Your task to perform on an android device: toggle airplane mode Image 0: 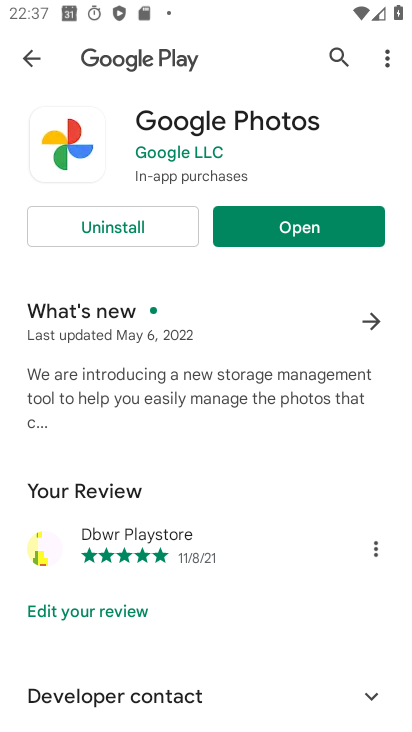
Step 0: press home button
Your task to perform on an android device: toggle airplane mode Image 1: 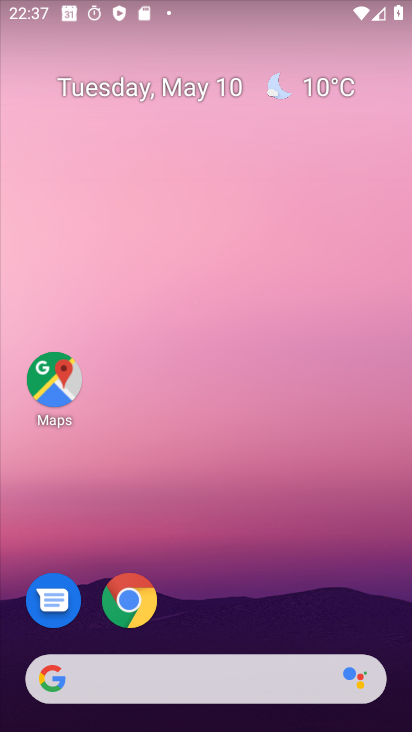
Step 1: drag from (238, 564) to (296, 165)
Your task to perform on an android device: toggle airplane mode Image 2: 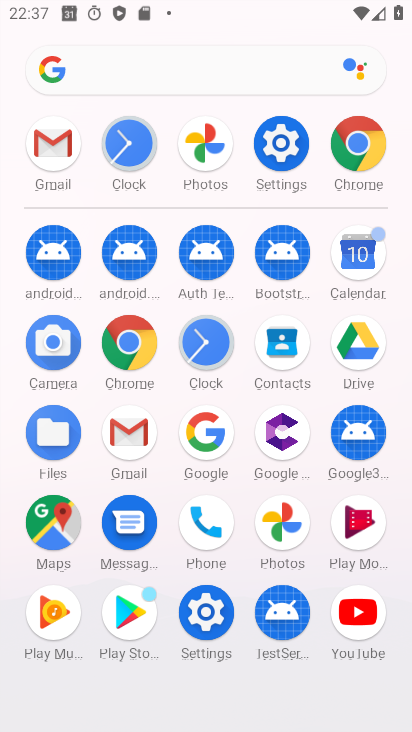
Step 2: click (280, 135)
Your task to perform on an android device: toggle airplane mode Image 3: 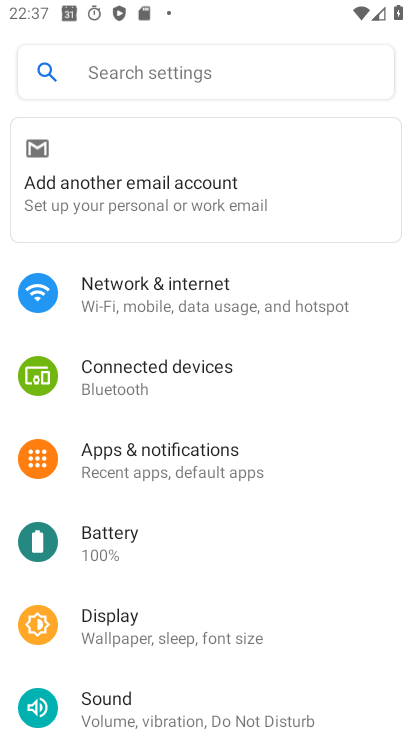
Step 3: click (165, 291)
Your task to perform on an android device: toggle airplane mode Image 4: 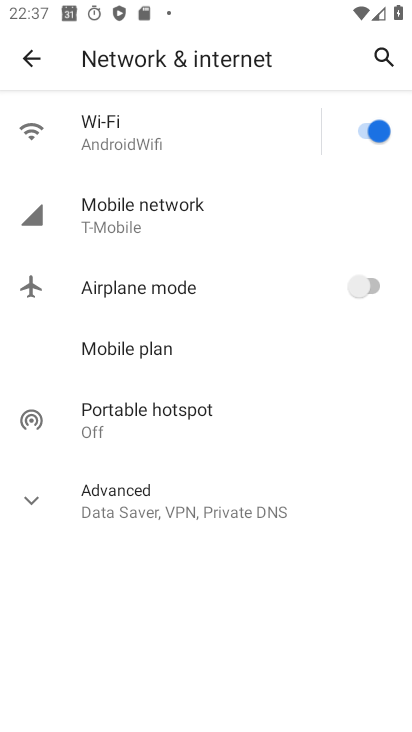
Step 4: click (354, 286)
Your task to perform on an android device: toggle airplane mode Image 5: 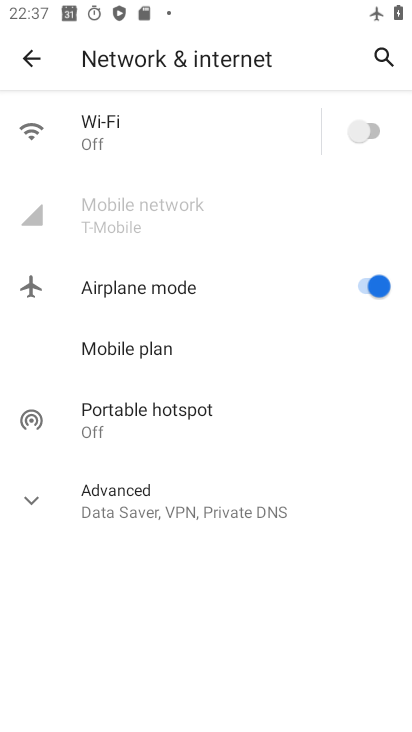
Step 5: task complete